Your task to perform on an android device: open a new tab in the chrome app Image 0: 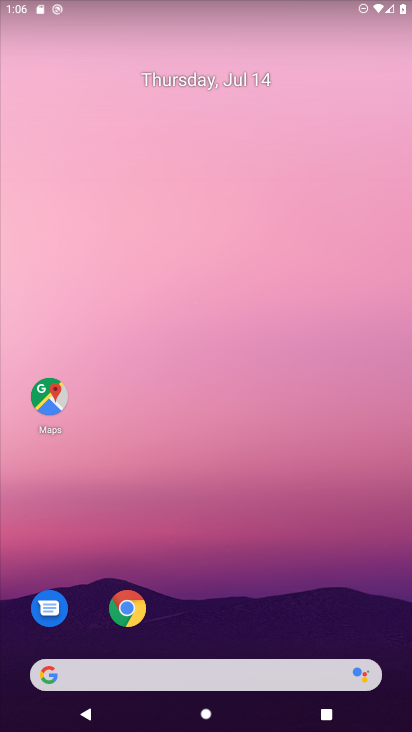
Step 0: drag from (259, 722) to (259, 61)
Your task to perform on an android device: open a new tab in the chrome app Image 1: 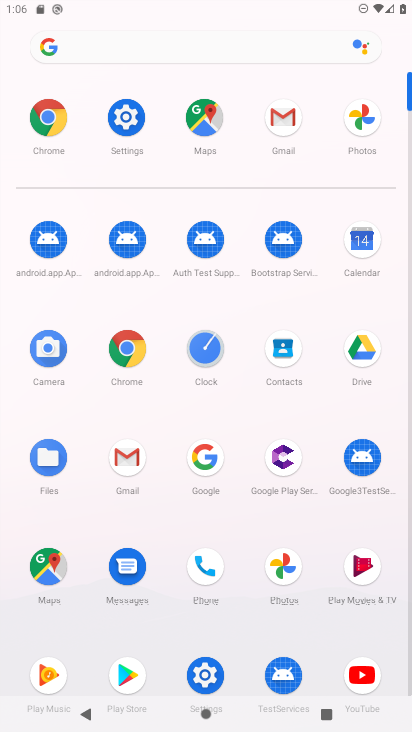
Step 1: click (48, 116)
Your task to perform on an android device: open a new tab in the chrome app Image 2: 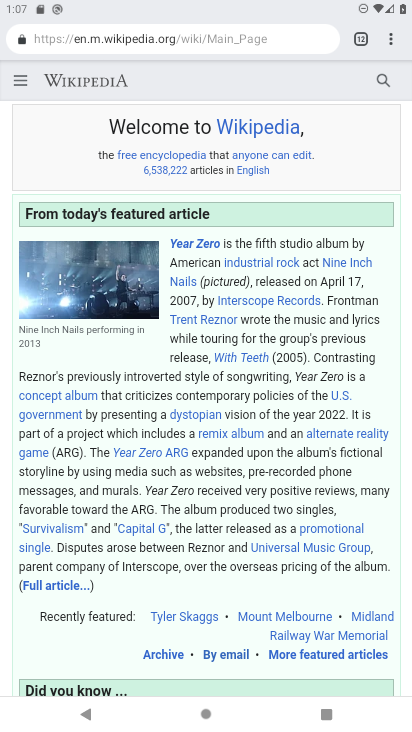
Step 2: click (393, 41)
Your task to perform on an android device: open a new tab in the chrome app Image 3: 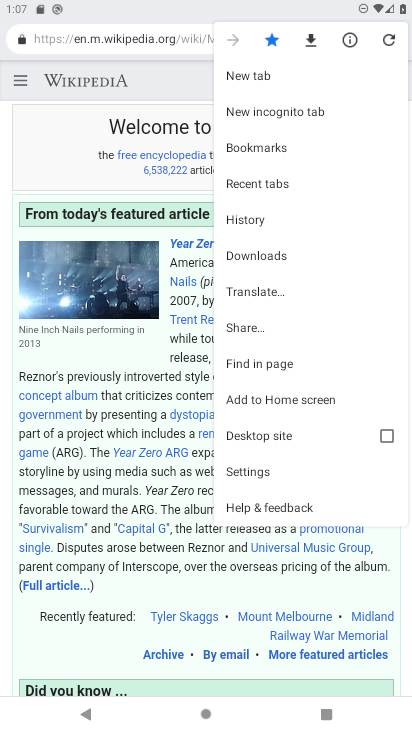
Step 3: click (251, 71)
Your task to perform on an android device: open a new tab in the chrome app Image 4: 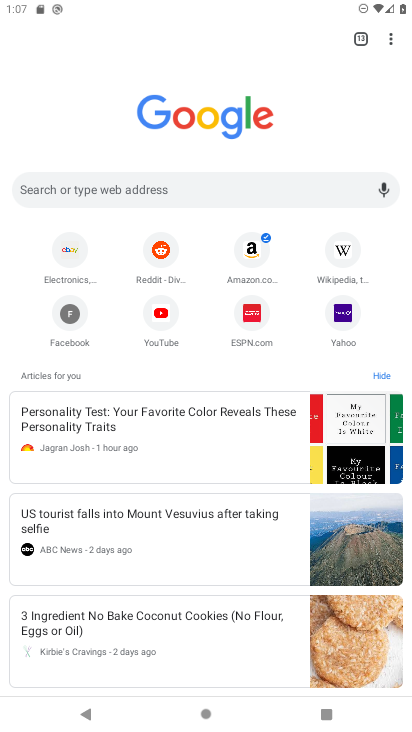
Step 4: task complete